Your task to perform on an android device: install app "AliExpress" Image 0: 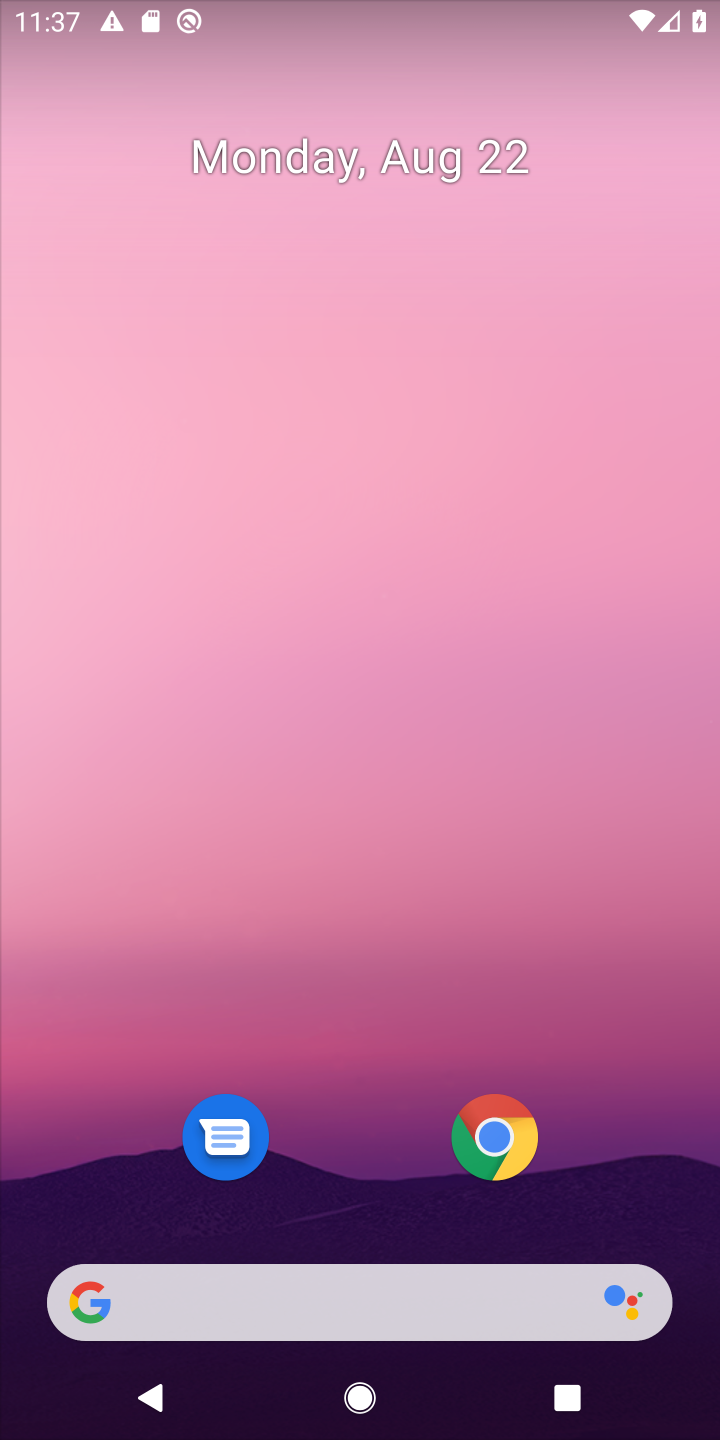
Step 0: drag from (373, 492) to (376, 143)
Your task to perform on an android device: install app "AliExpress" Image 1: 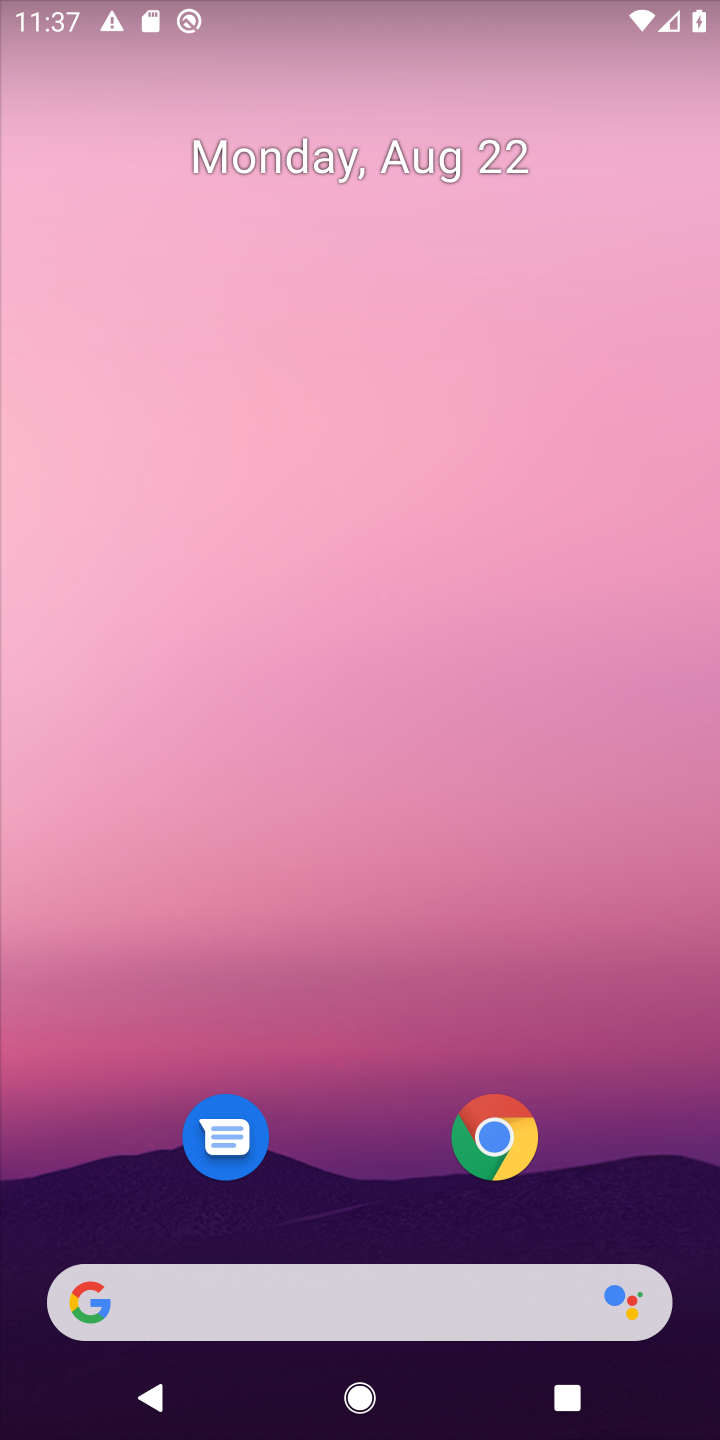
Step 1: drag from (365, 879) to (360, 143)
Your task to perform on an android device: install app "AliExpress" Image 2: 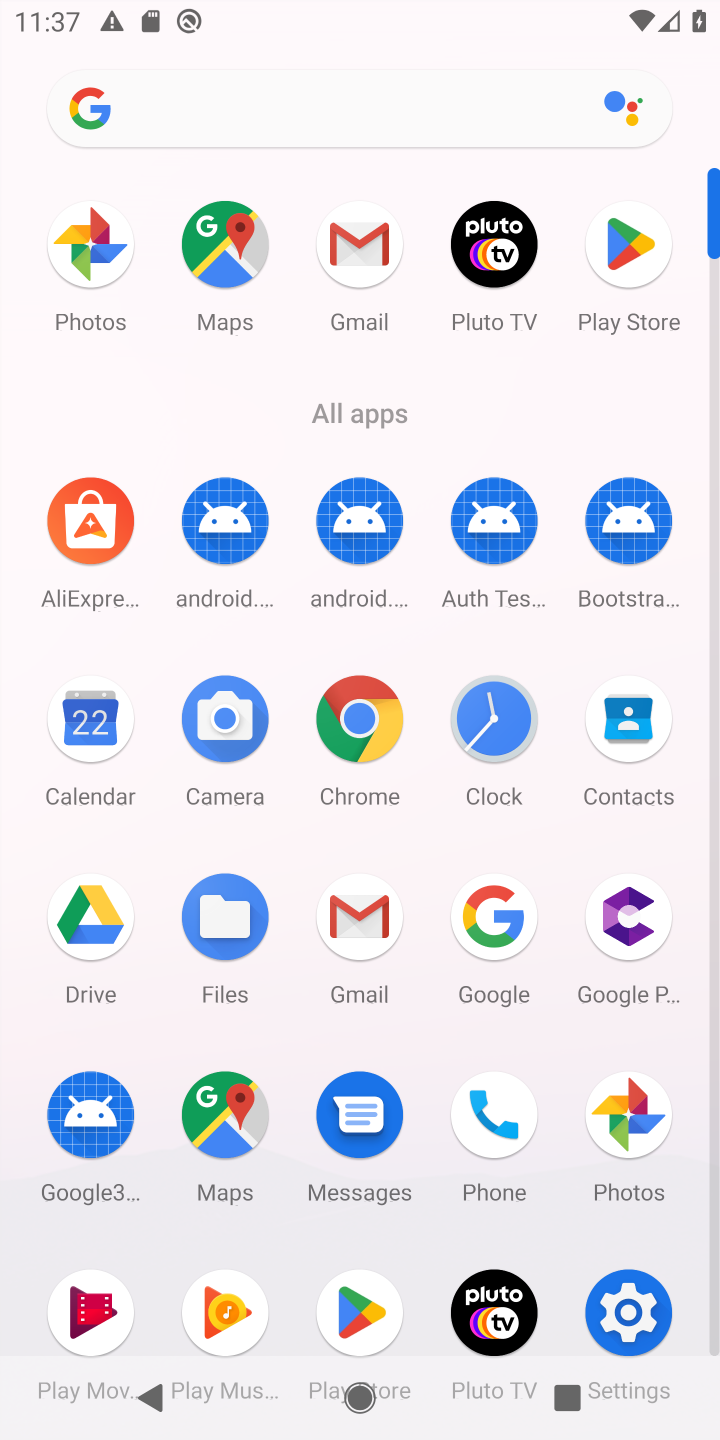
Step 2: click (616, 255)
Your task to perform on an android device: install app "AliExpress" Image 3: 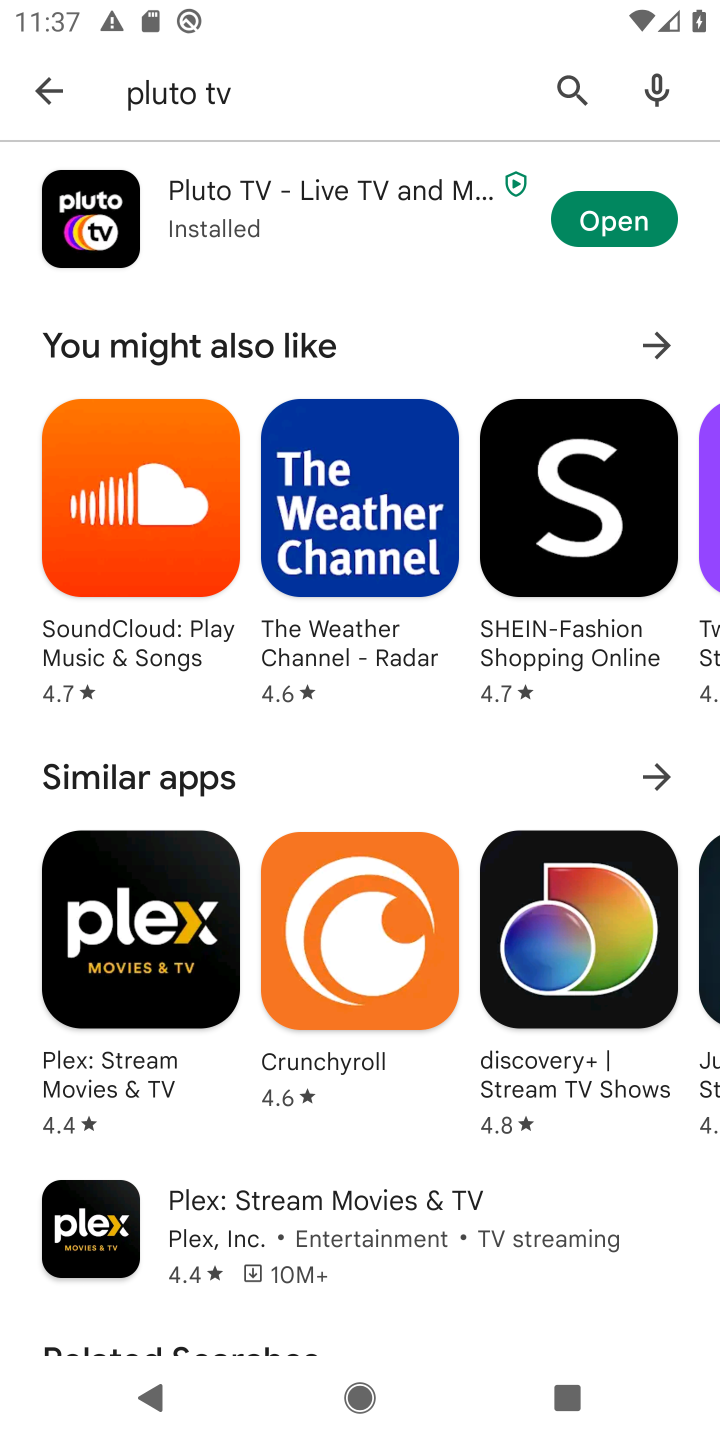
Step 3: click (36, 97)
Your task to perform on an android device: install app "AliExpress" Image 4: 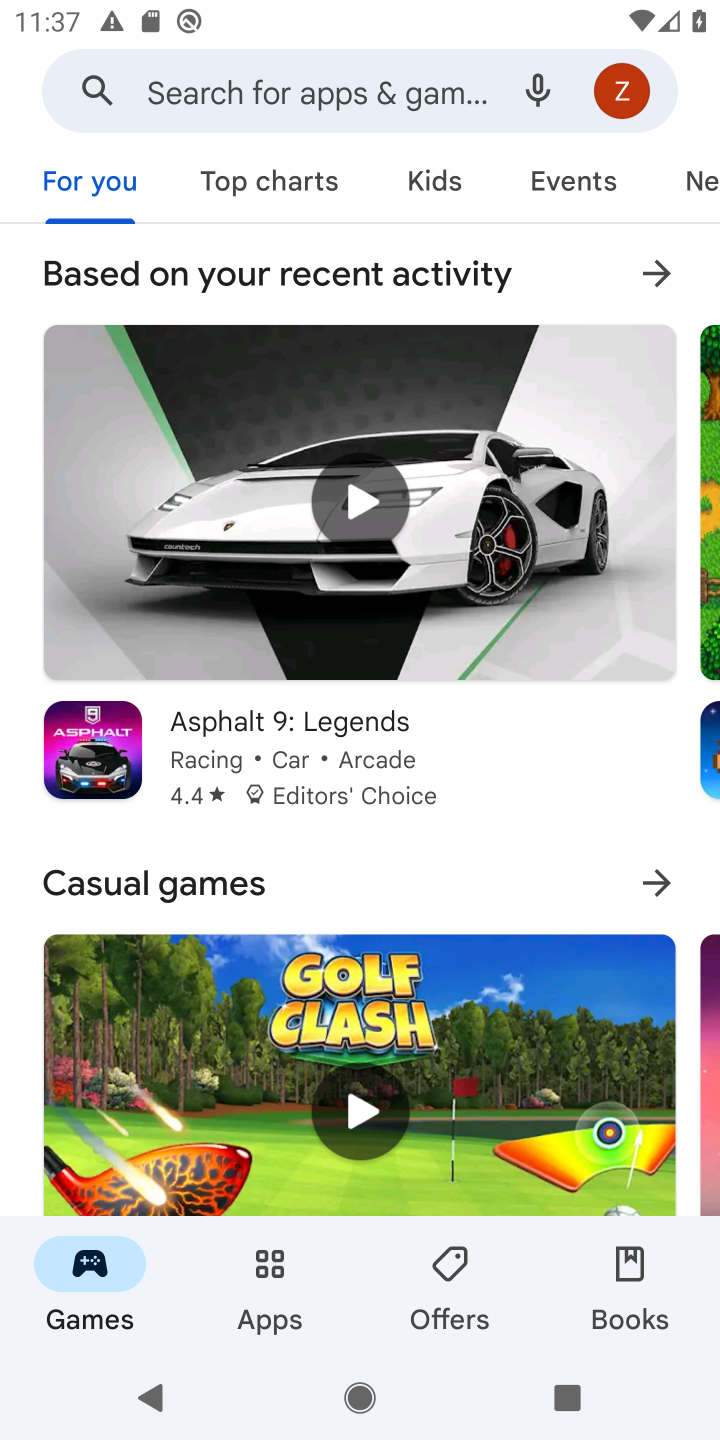
Step 4: click (210, 98)
Your task to perform on an android device: install app "AliExpress" Image 5: 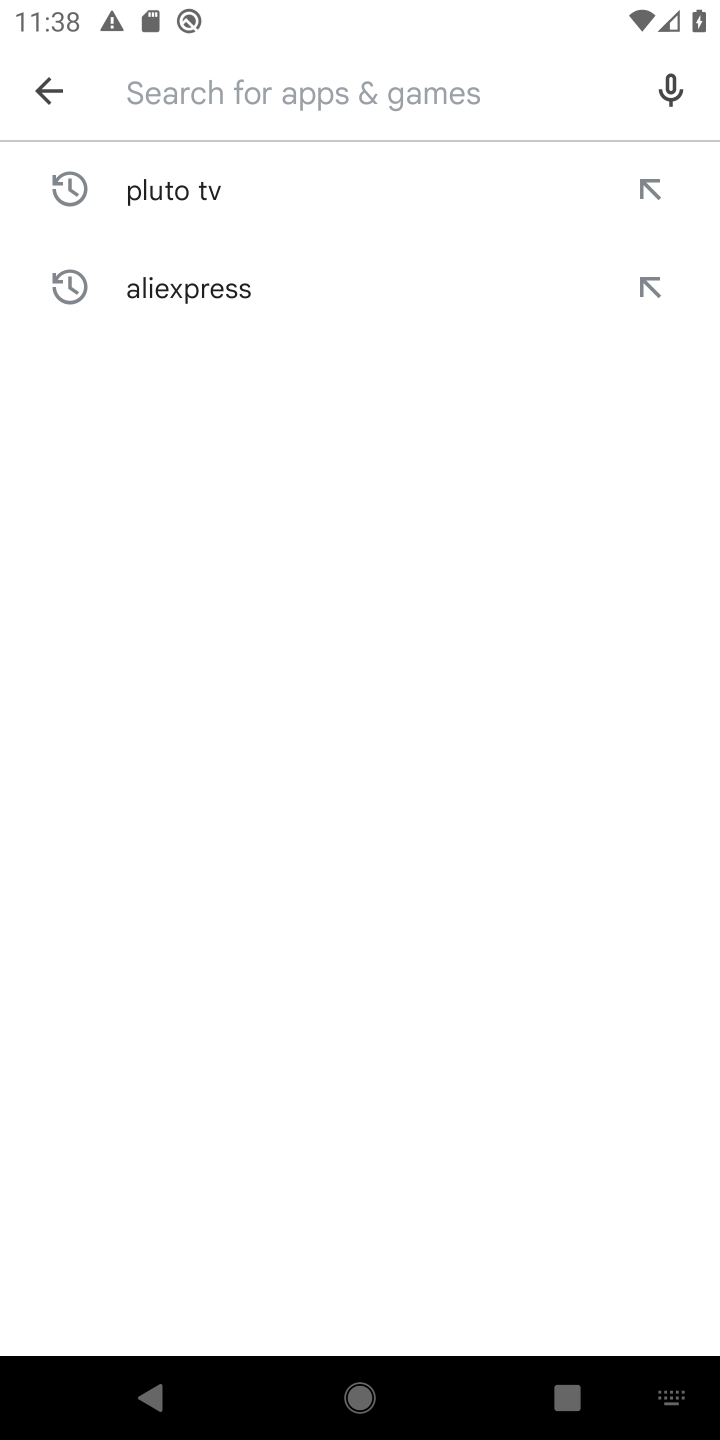
Step 5: type "AliExpress"
Your task to perform on an android device: install app "AliExpress" Image 6: 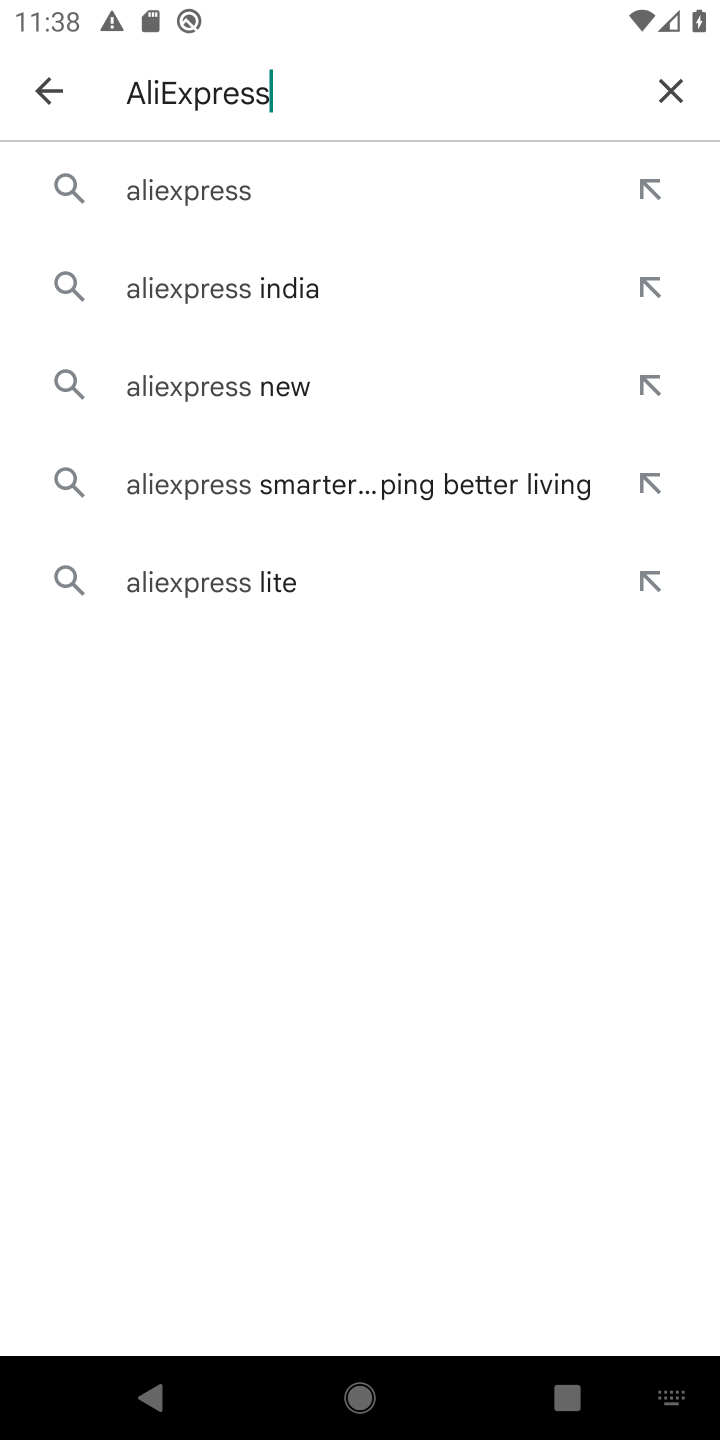
Step 6: click (190, 188)
Your task to perform on an android device: install app "AliExpress" Image 7: 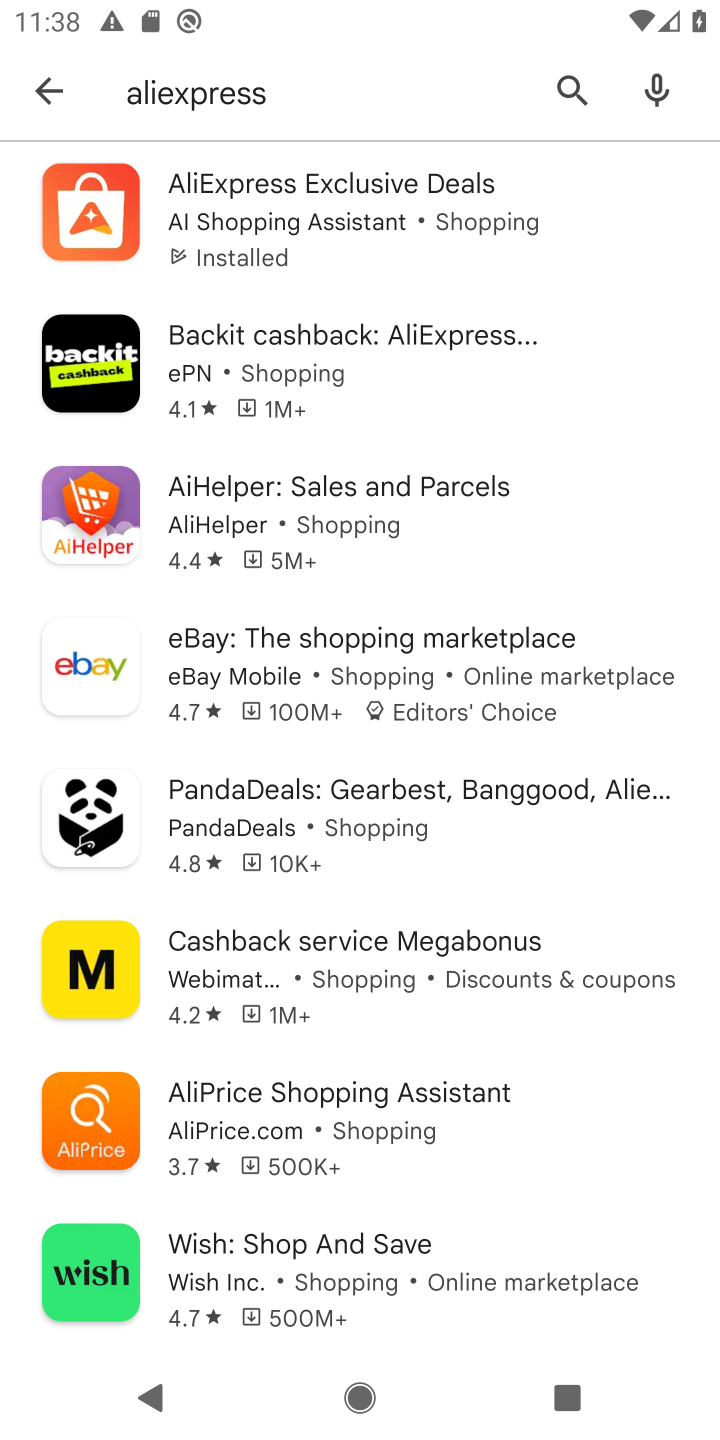
Step 7: click (190, 188)
Your task to perform on an android device: install app "AliExpress" Image 8: 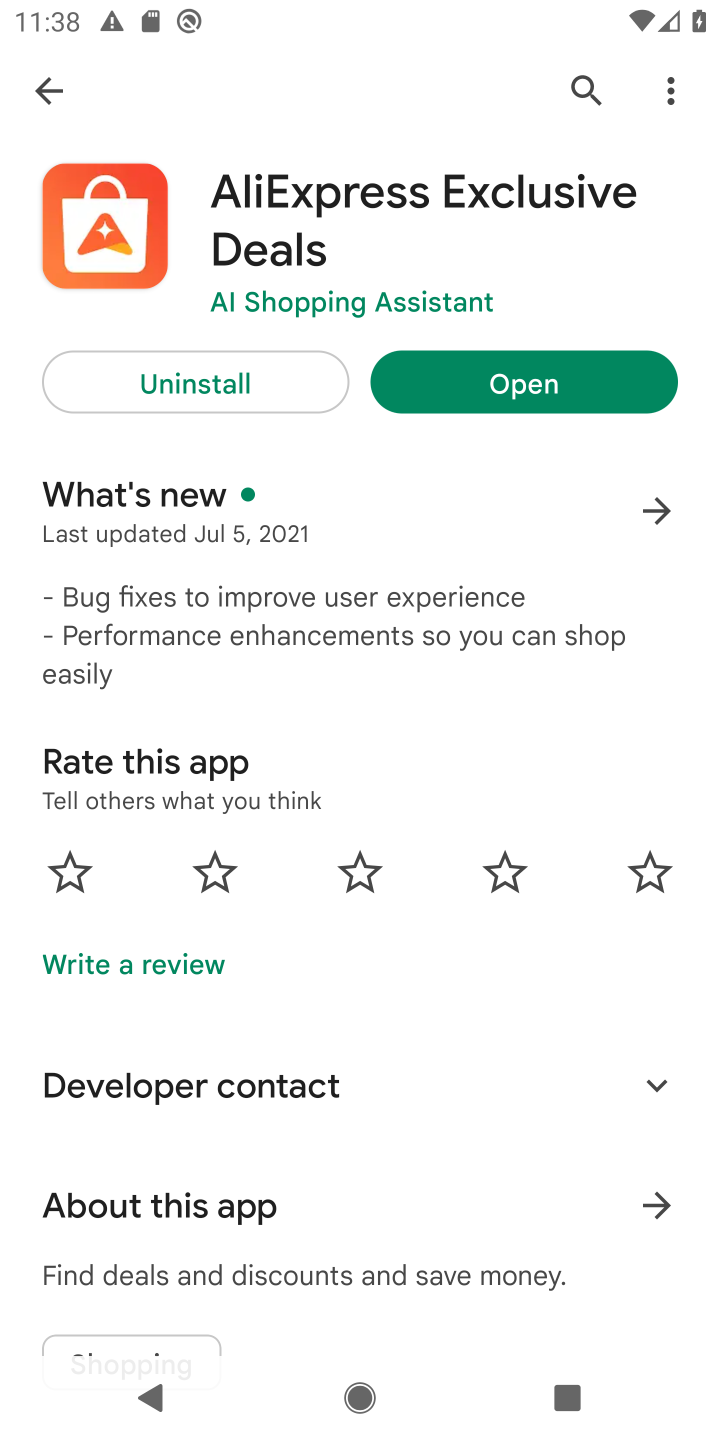
Step 8: click (487, 386)
Your task to perform on an android device: install app "AliExpress" Image 9: 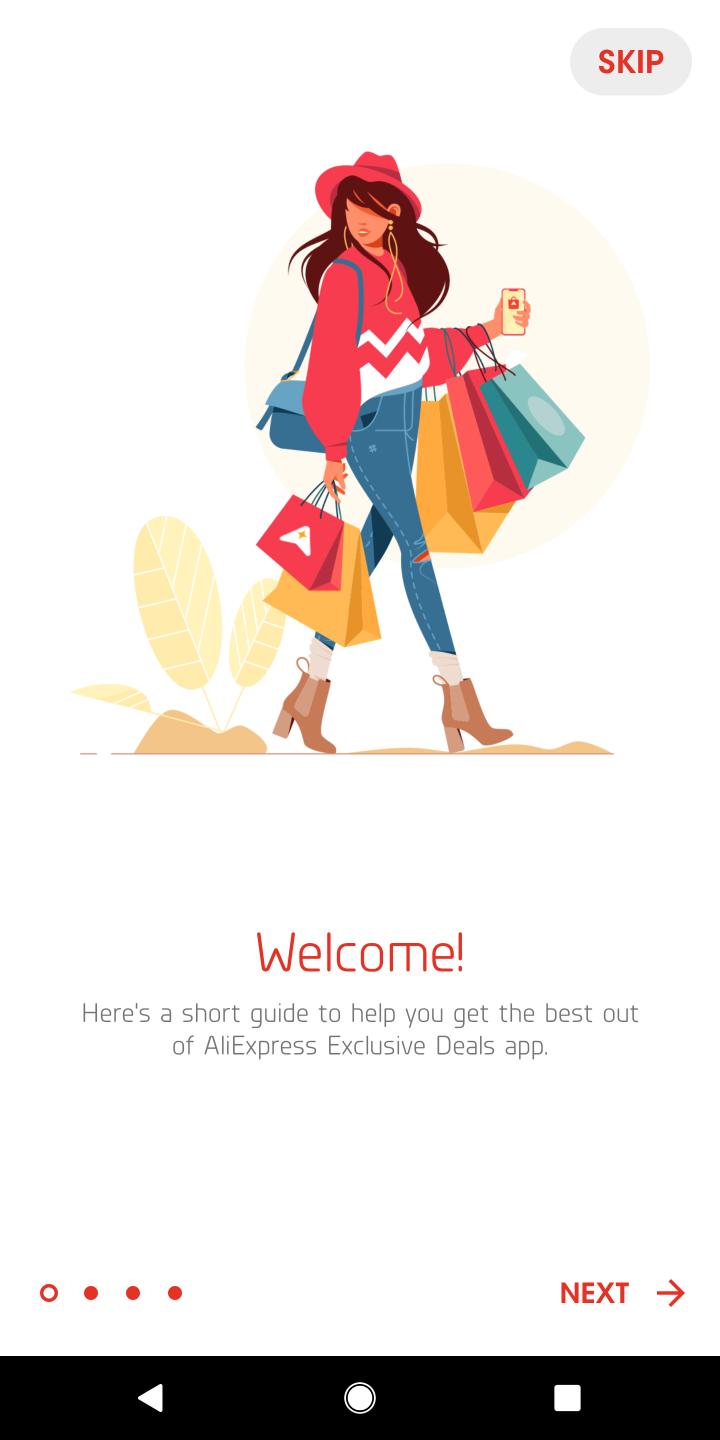
Step 9: task complete